Your task to perform on an android device: uninstall "eBay: The shopping marketplace" Image 0: 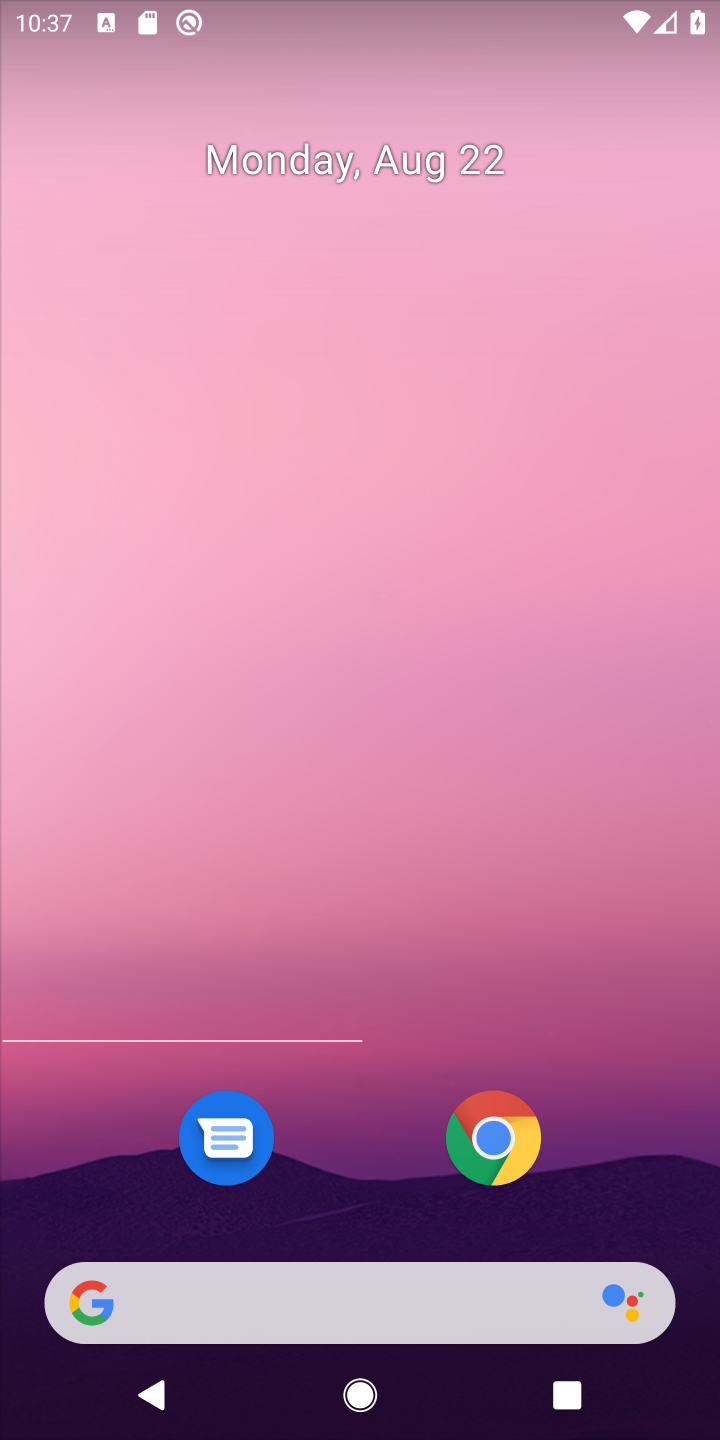
Step 0: press home button
Your task to perform on an android device: uninstall "eBay: The shopping marketplace" Image 1: 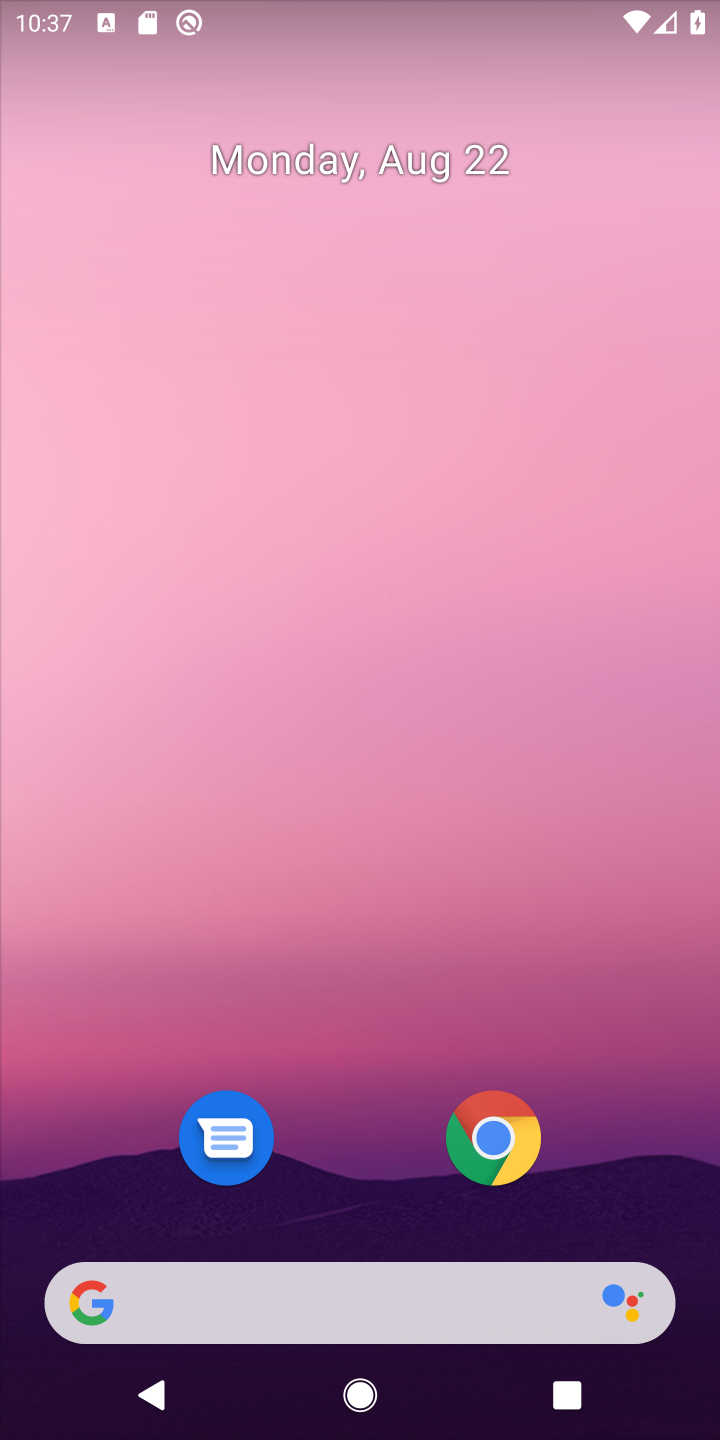
Step 1: drag from (370, 1227) to (353, 187)
Your task to perform on an android device: uninstall "eBay: The shopping marketplace" Image 2: 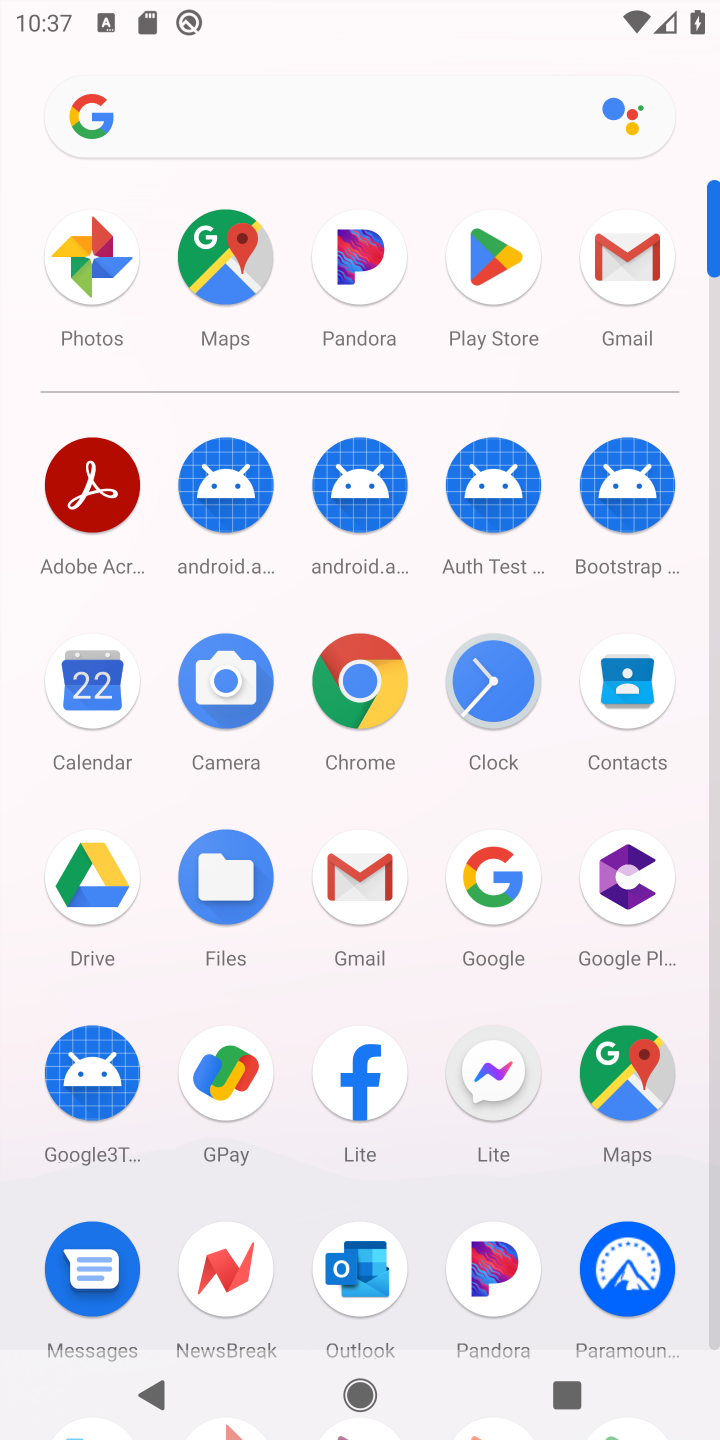
Step 2: click (487, 250)
Your task to perform on an android device: uninstall "eBay: The shopping marketplace" Image 3: 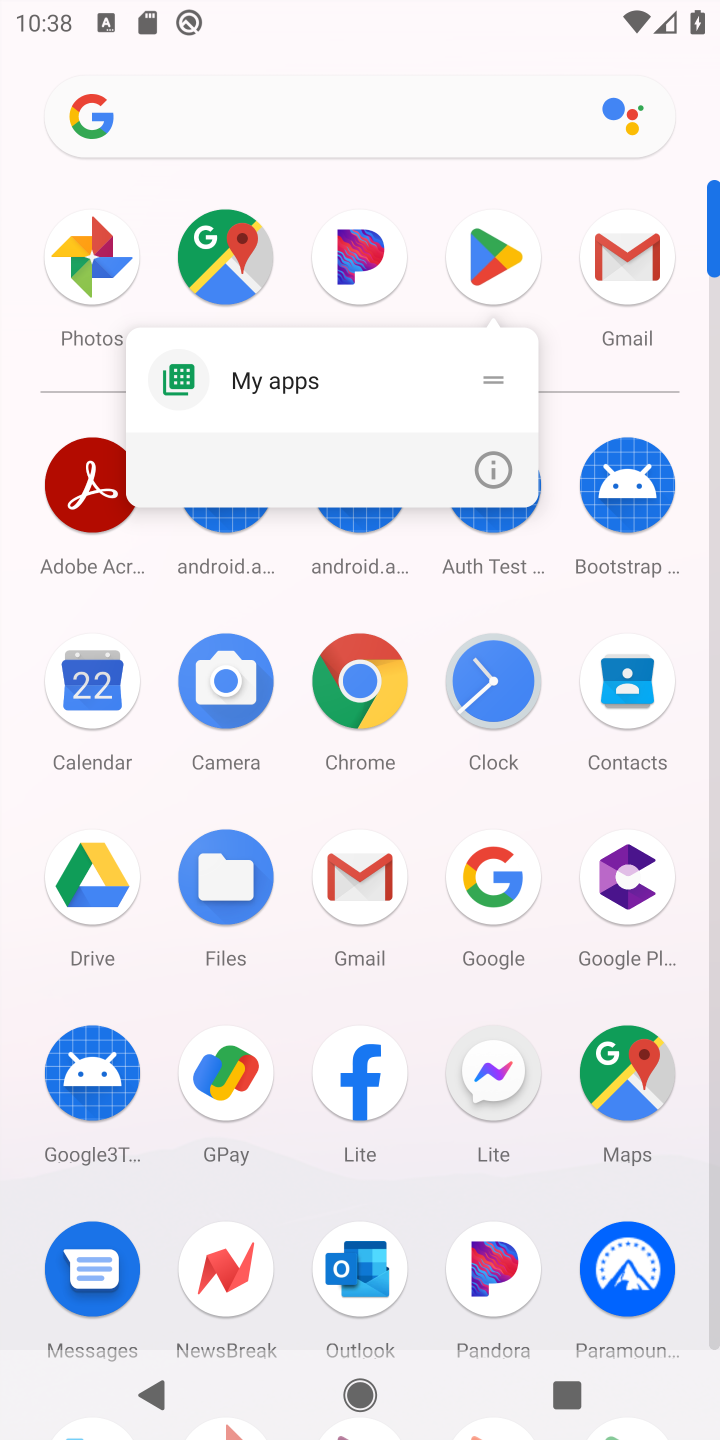
Step 3: click (484, 244)
Your task to perform on an android device: uninstall "eBay: The shopping marketplace" Image 4: 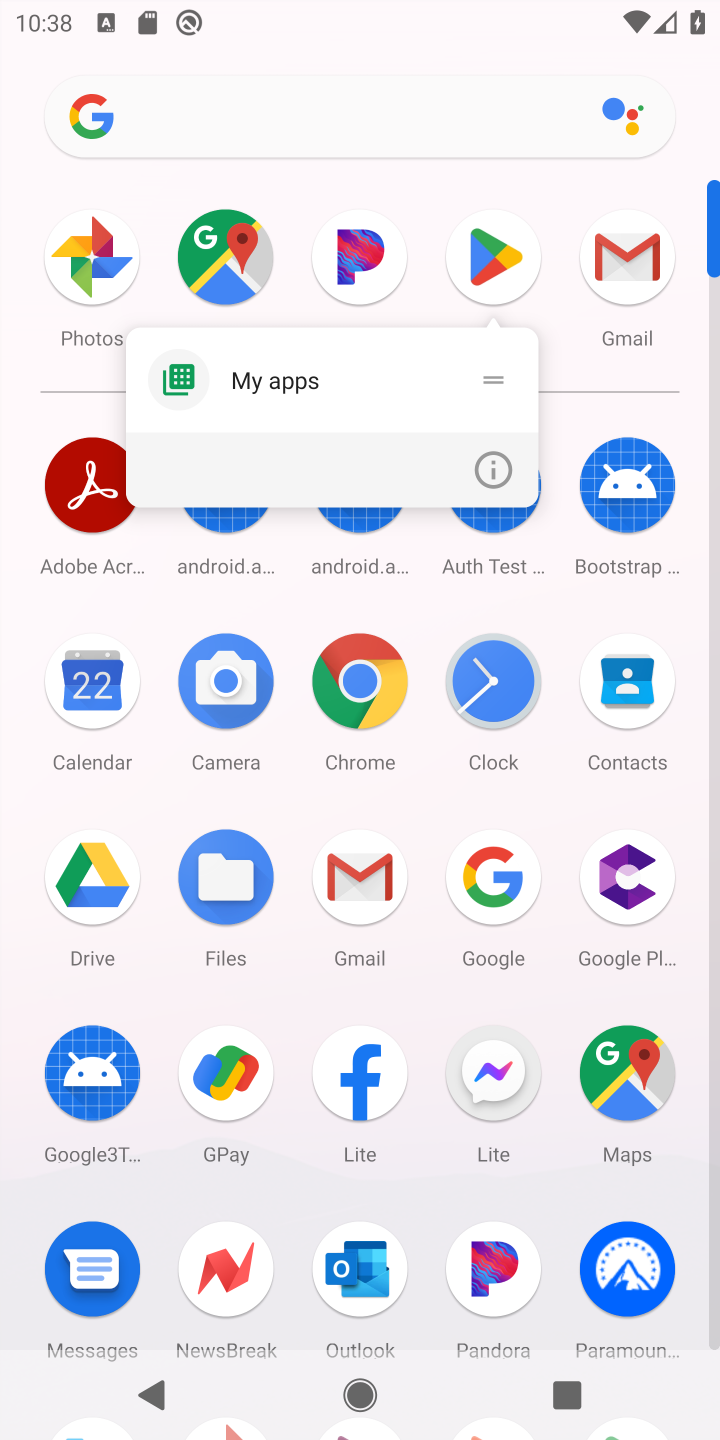
Step 4: click (483, 246)
Your task to perform on an android device: uninstall "eBay: The shopping marketplace" Image 5: 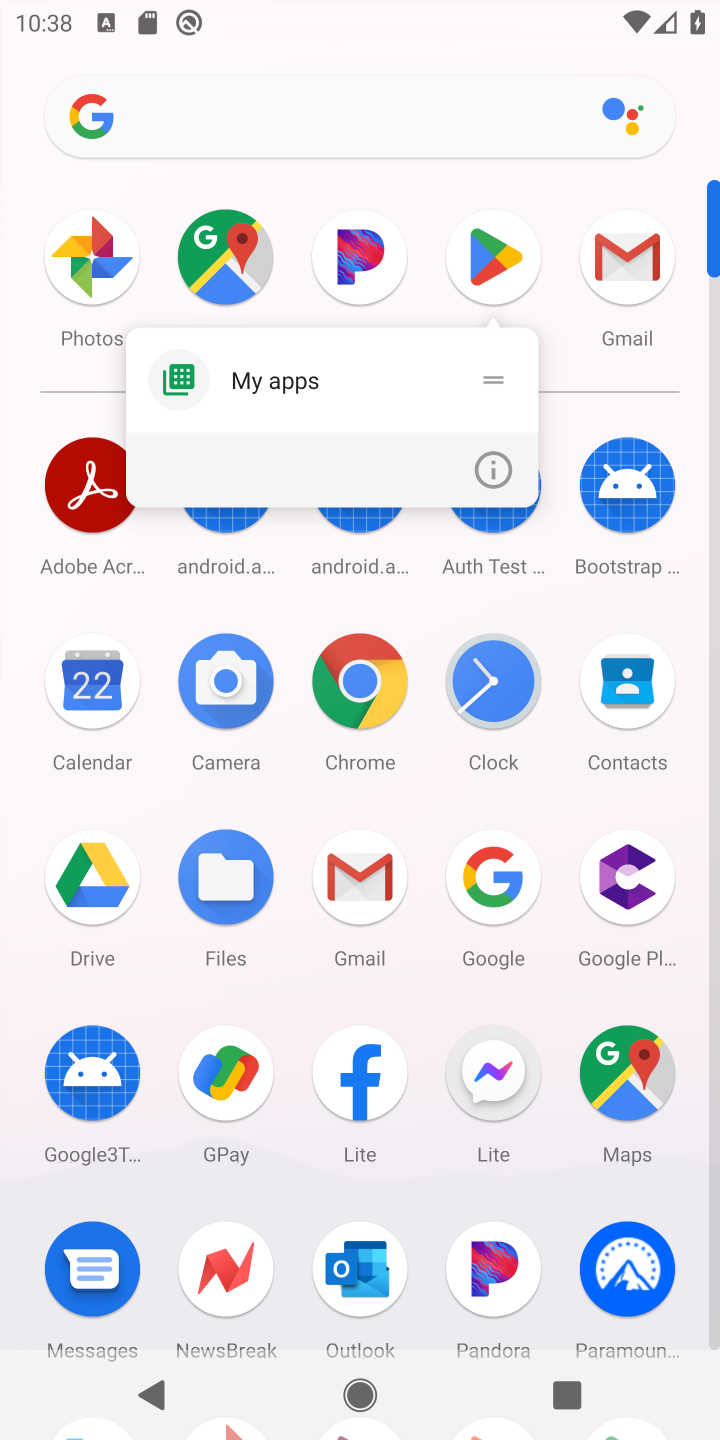
Step 5: click (483, 249)
Your task to perform on an android device: uninstall "eBay: The shopping marketplace" Image 6: 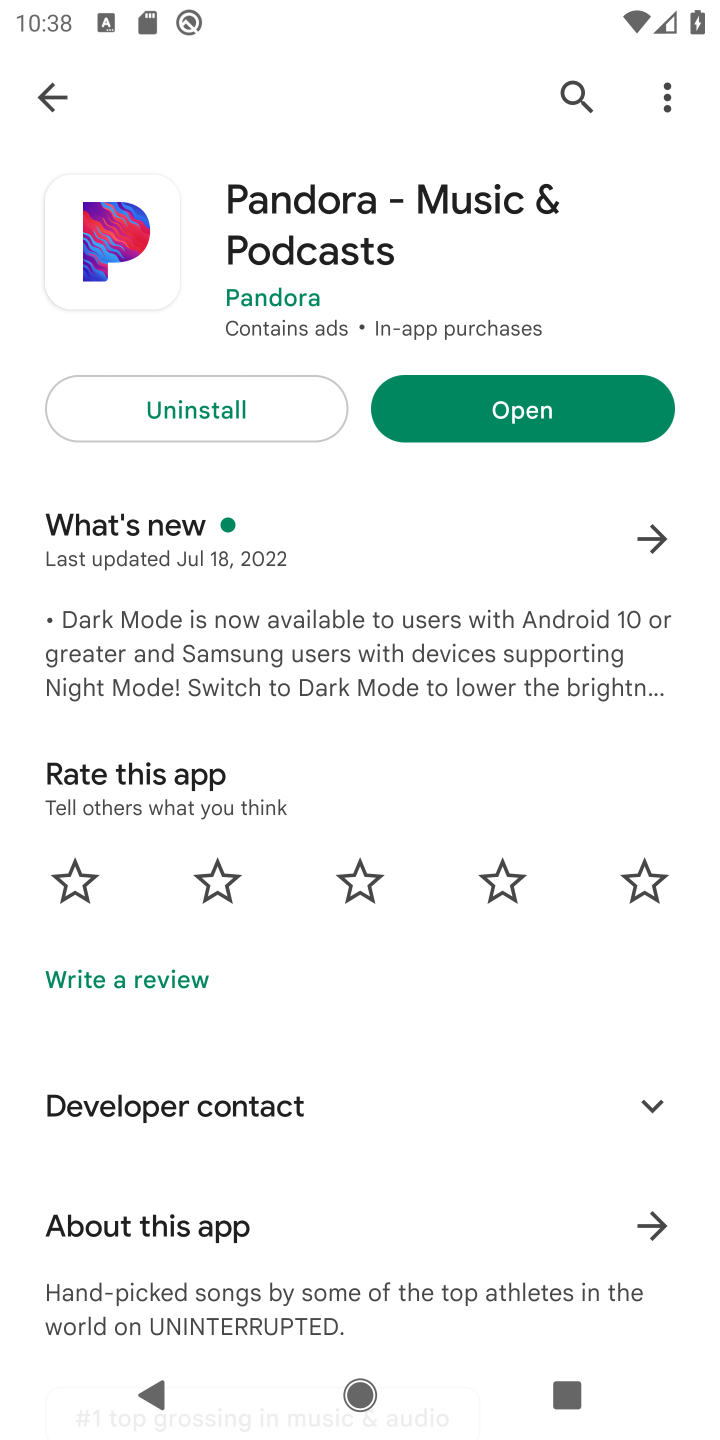
Step 6: click (590, 79)
Your task to perform on an android device: uninstall "eBay: The shopping marketplace" Image 7: 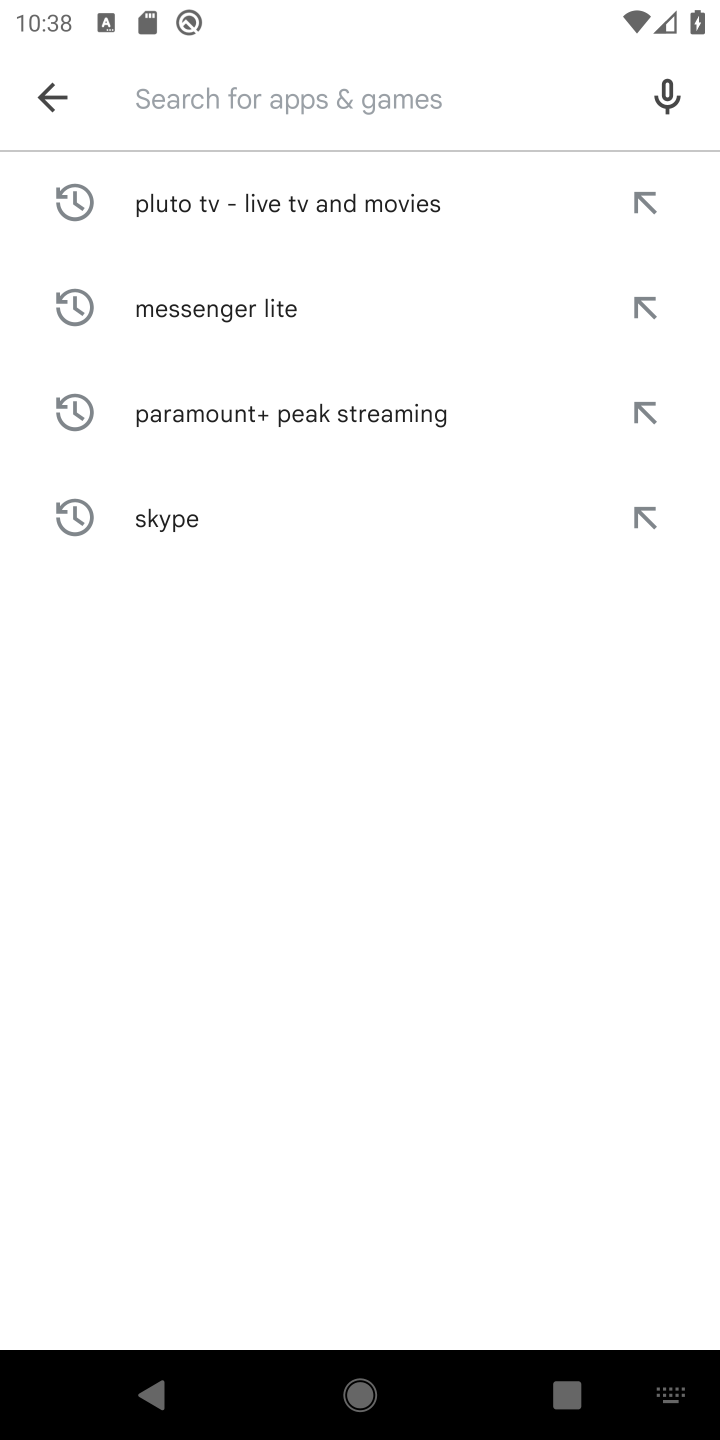
Step 7: type "eBay: The shopping marketplace"
Your task to perform on an android device: uninstall "eBay: The shopping marketplace" Image 8: 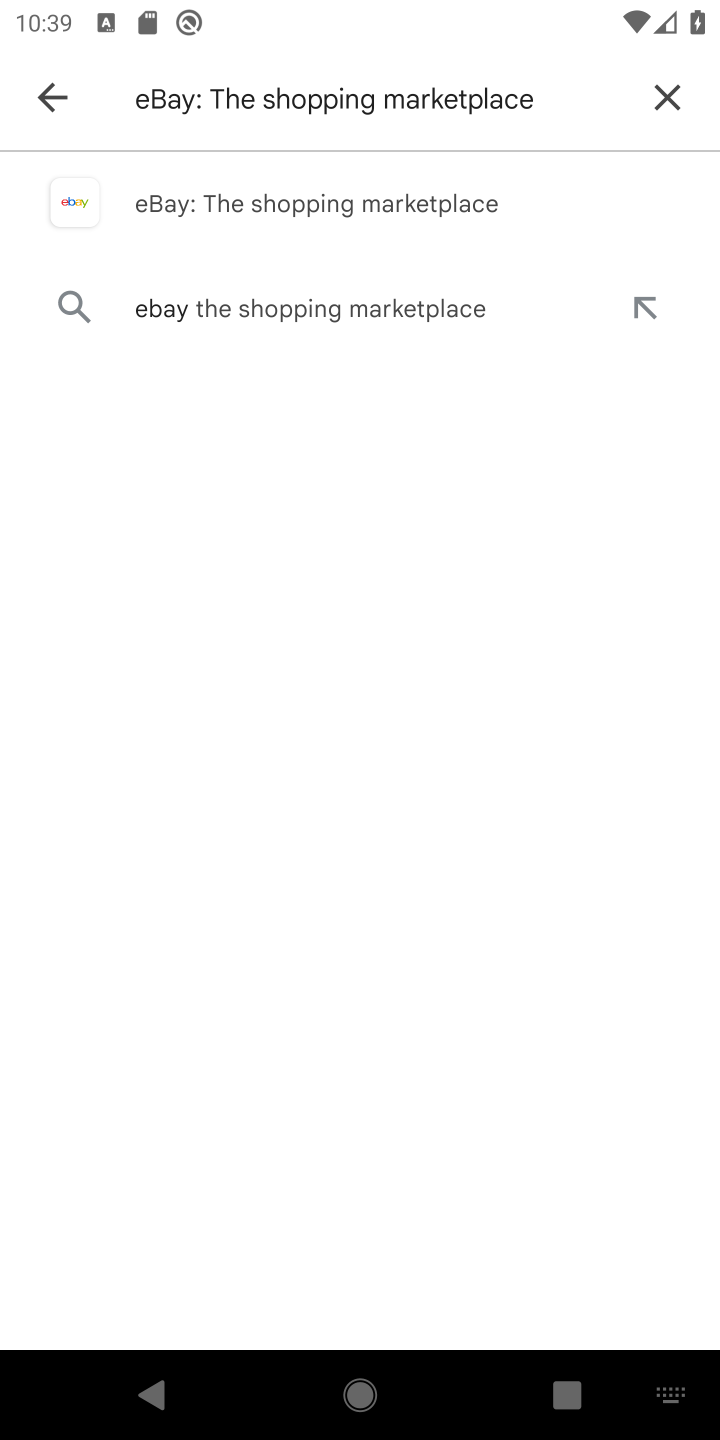
Step 8: click (323, 199)
Your task to perform on an android device: uninstall "eBay: The shopping marketplace" Image 9: 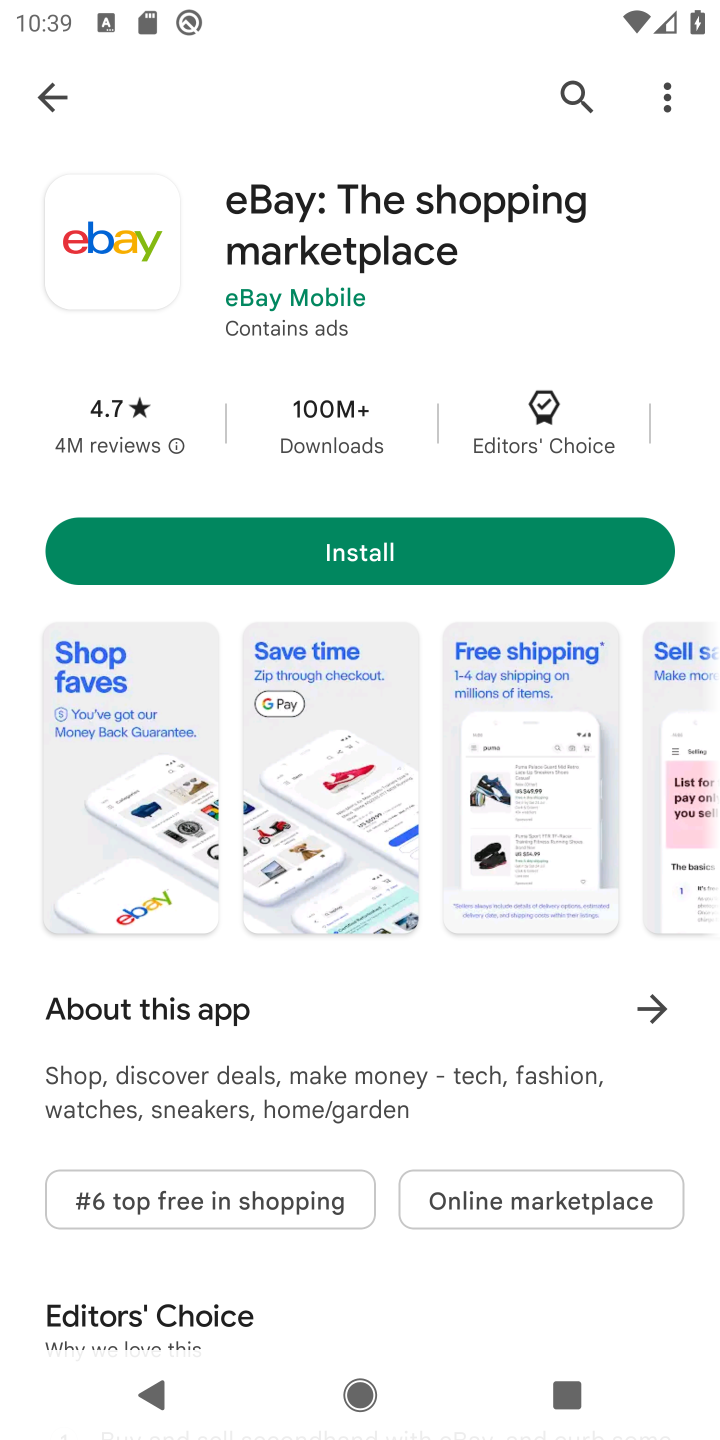
Step 9: task complete